Your task to perform on an android device: set the timer Image 0: 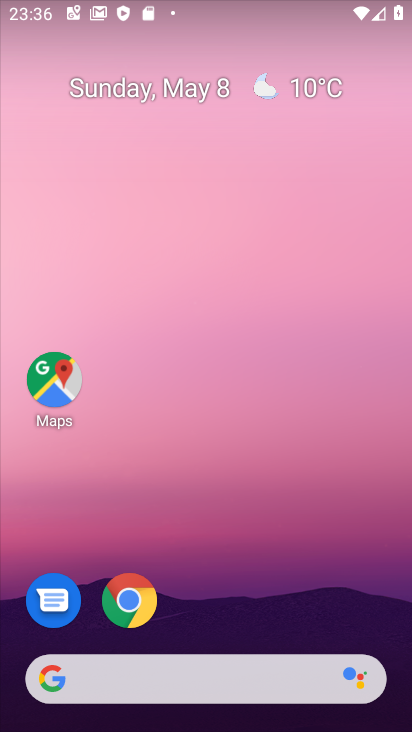
Step 0: drag from (210, 630) to (201, 61)
Your task to perform on an android device: set the timer Image 1: 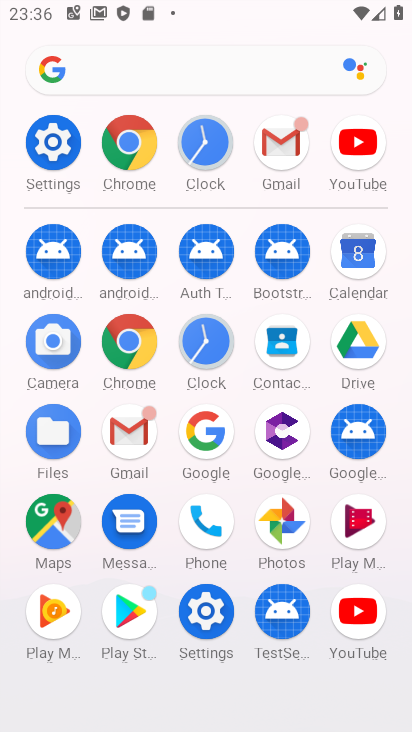
Step 1: click (213, 365)
Your task to perform on an android device: set the timer Image 2: 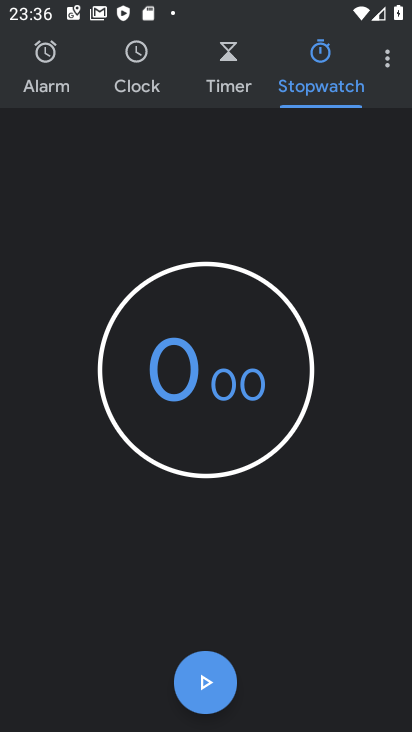
Step 2: click (228, 93)
Your task to perform on an android device: set the timer Image 3: 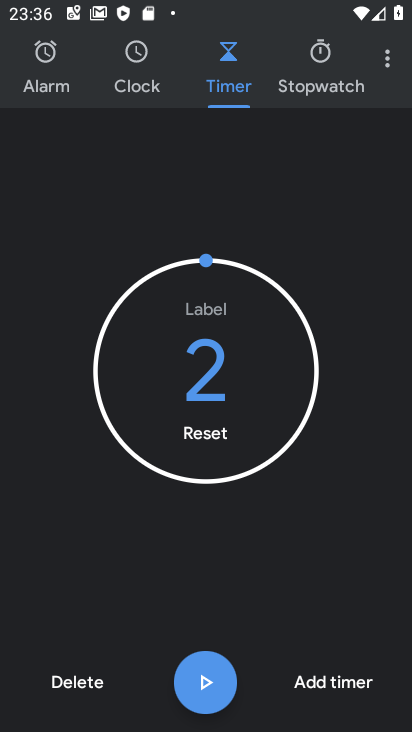
Step 3: task complete